Your task to perform on an android device: Clear the shopping cart on bestbuy.com. Add "bose soundlink" to the cart on bestbuy.com, then select checkout. Image 0: 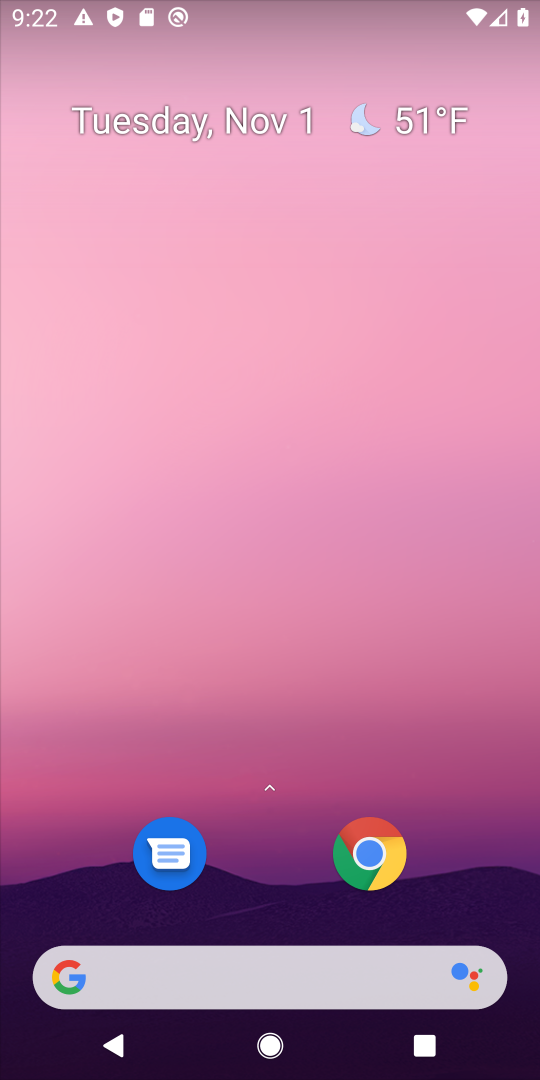
Step 0: click (246, 986)
Your task to perform on an android device: Clear the shopping cart on bestbuy.com. Add "bose soundlink" to the cart on bestbuy.com, then select checkout. Image 1: 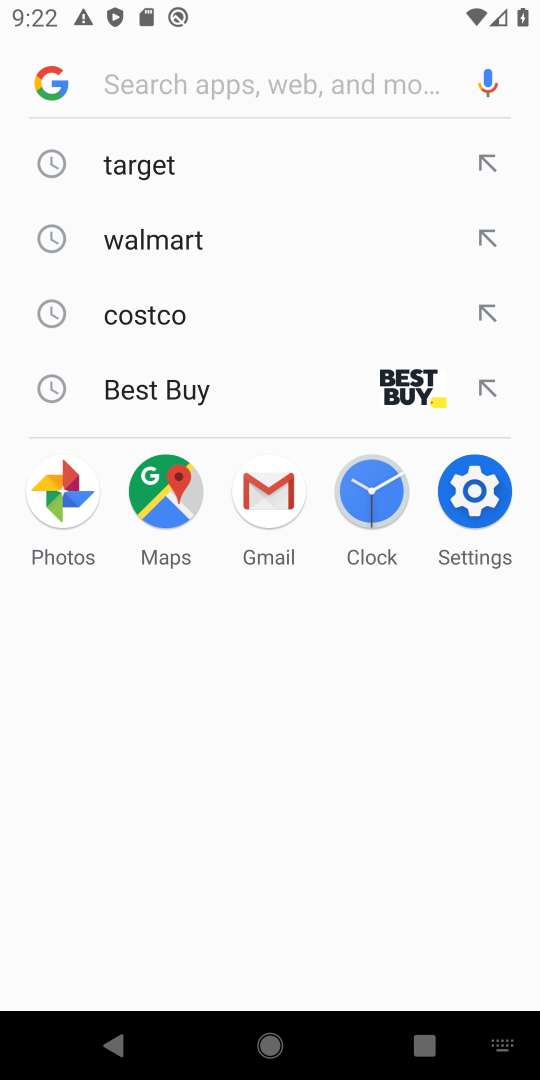
Step 1: click (281, 393)
Your task to perform on an android device: Clear the shopping cart on bestbuy.com. Add "bose soundlink" to the cart on bestbuy.com, then select checkout. Image 2: 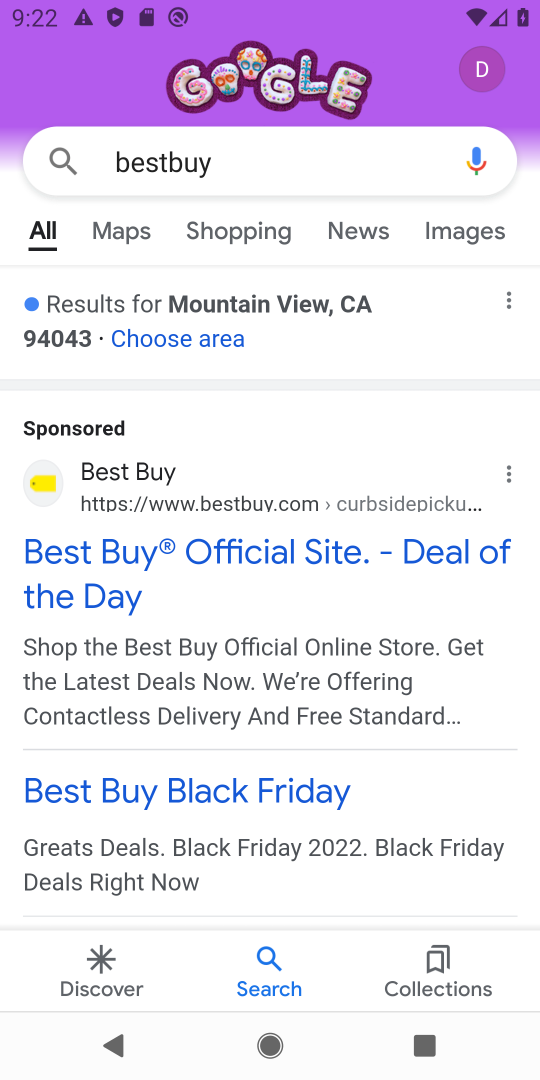
Step 2: click (199, 551)
Your task to perform on an android device: Clear the shopping cart on bestbuy.com. Add "bose soundlink" to the cart on bestbuy.com, then select checkout. Image 3: 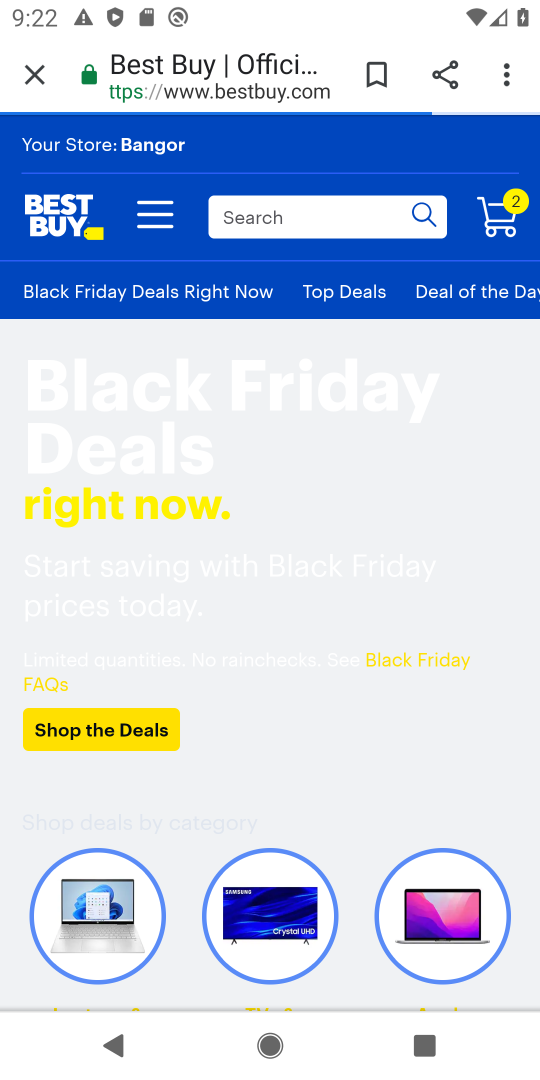
Step 3: click (299, 220)
Your task to perform on an android device: Clear the shopping cart on bestbuy.com. Add "bose soundlink" to the cart on bestbuy.com, then select checkout. Image 4: 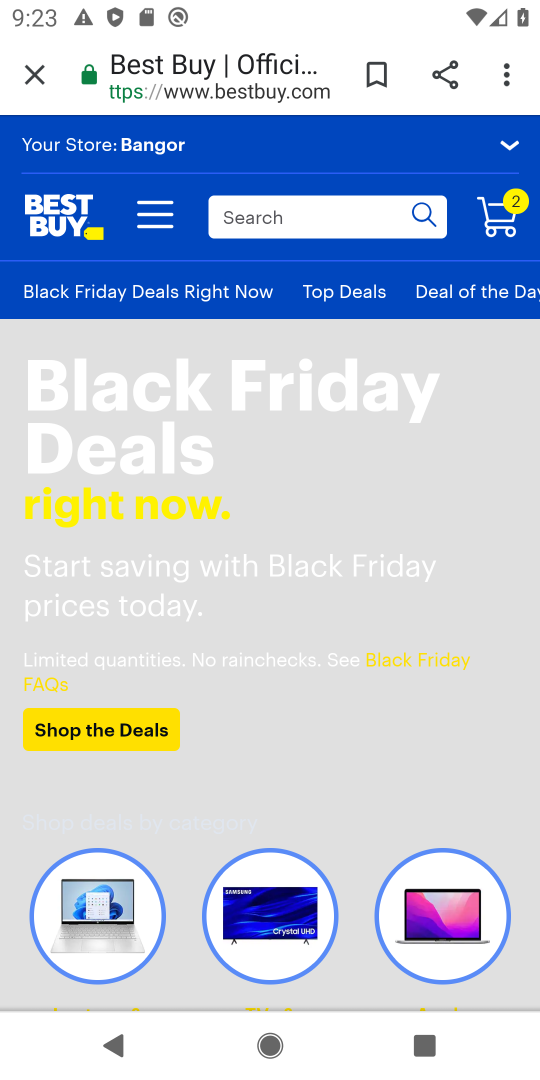
Step 4: type "bose soundlink"
Your task to perform on an android device: Clear the shopping cart on bestbuy.com. Add "bose soundlink" to the cart on bestbuy.com, then select checkout. Image 5: 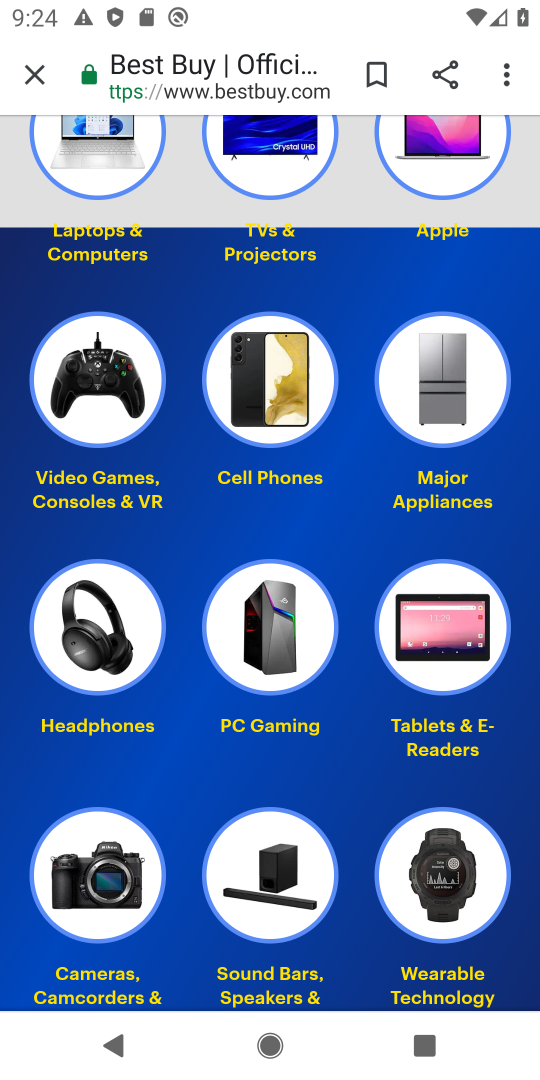
Step 5: task complete